Your task to perform on an android device: toggle pop-ups in chrome Image 0: 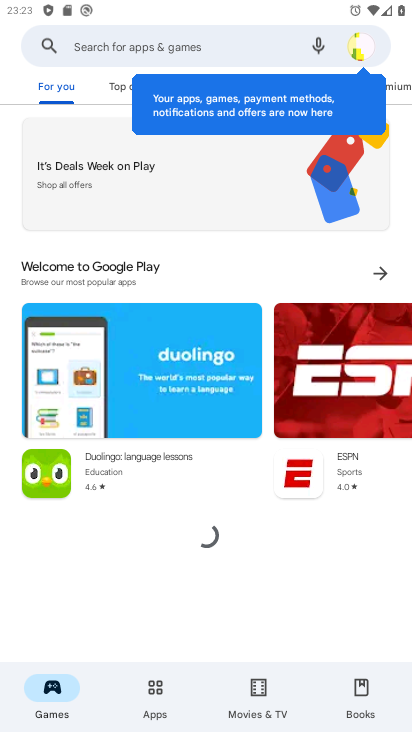
Step 0: press home button
Your task to perform on an android device: toggle pop-ups in chrome Image 1: 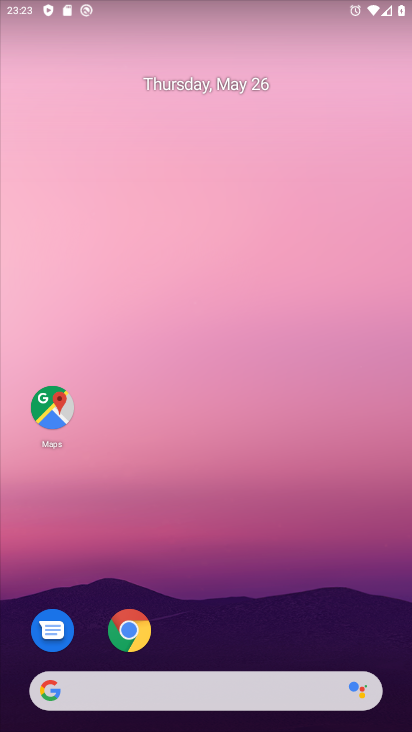
Step 1: click (131, 630)
Your task to perform on an android device: toggle pop-ups in chrome Image 2: 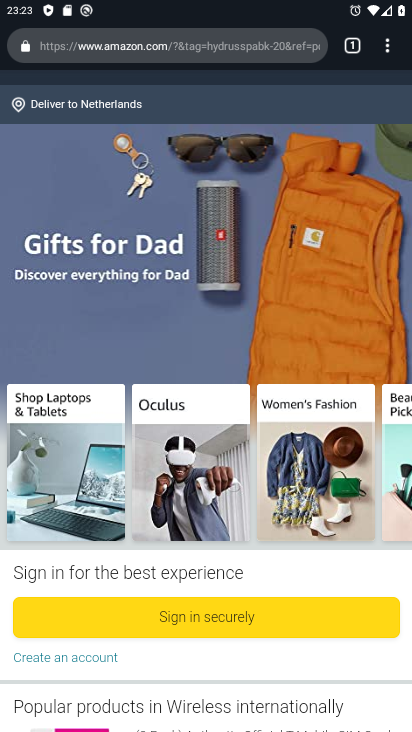
Step 2: click (387, 48)
Your task to perform on an android device: toggle pop-ups in chrome Image 3: 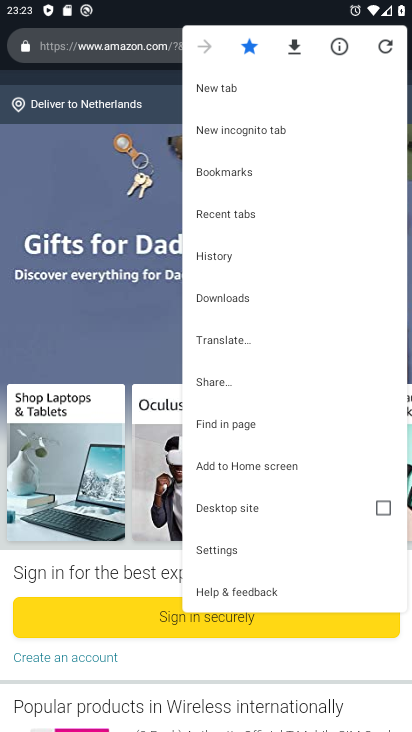
Step 3: drag from (236, 370) to (236, 286)
Your task to perform on an android device: toggle pop-ups in chrome Image 4: 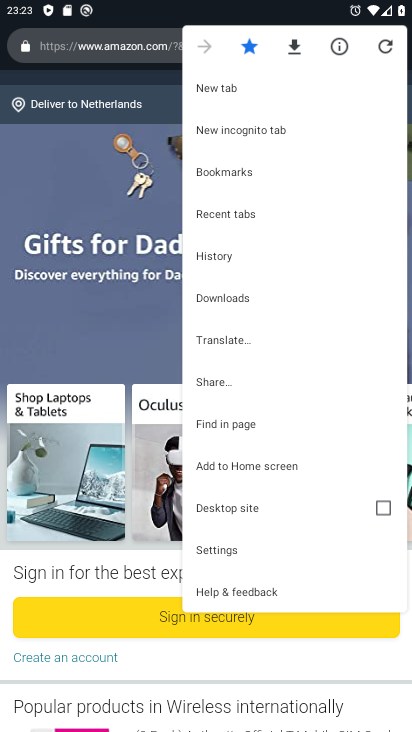
Step 4: click (232, 546)
Your task to perform on an android device: toggle pop-ups in chrome Image 5: 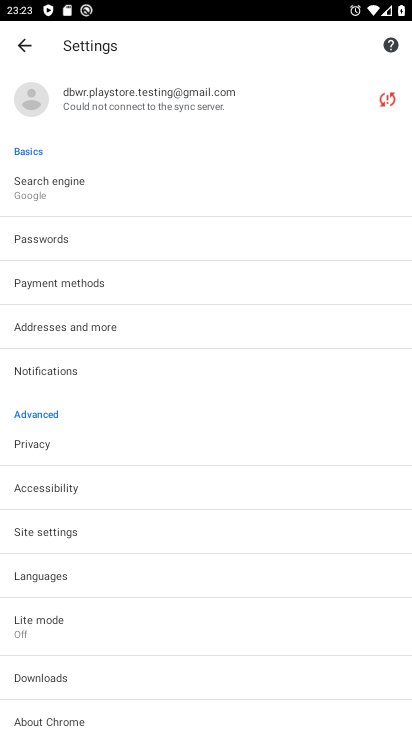
Step 5: drag from (101, 553) to (118, 452)
Your task to perform on an android device: toggle pop-ups in chrome Image 6: 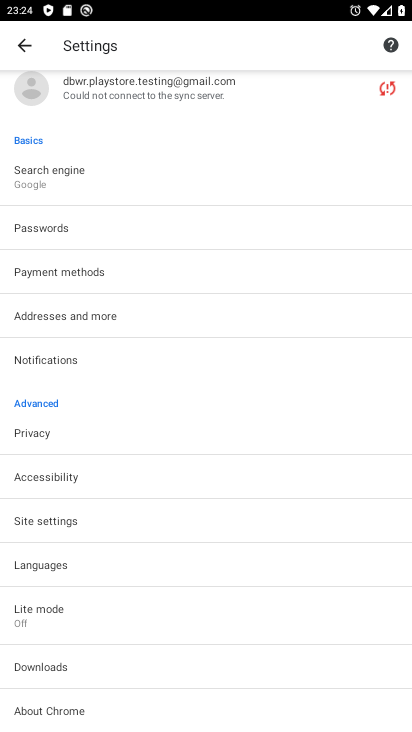
Step 6: click (61, 516)
Your task to perform on an android device: toggle pop-ups in chrome Image 7: 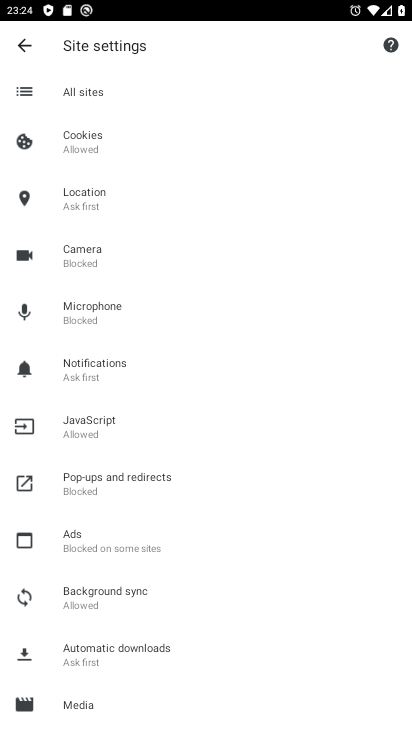
Step 7: click (96, 483)
Your task to perform on an android device: toggle pop-ups in chrome Image 8: 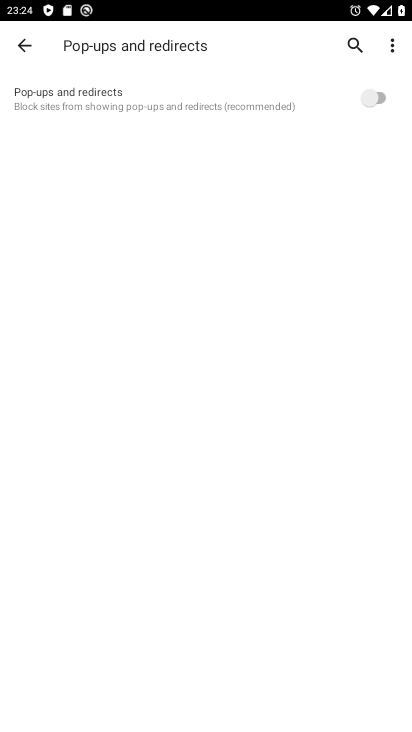
Step 8: click (377, 94)
Your task to perform on an android device: toggle pop-ups in chrome Image 9: 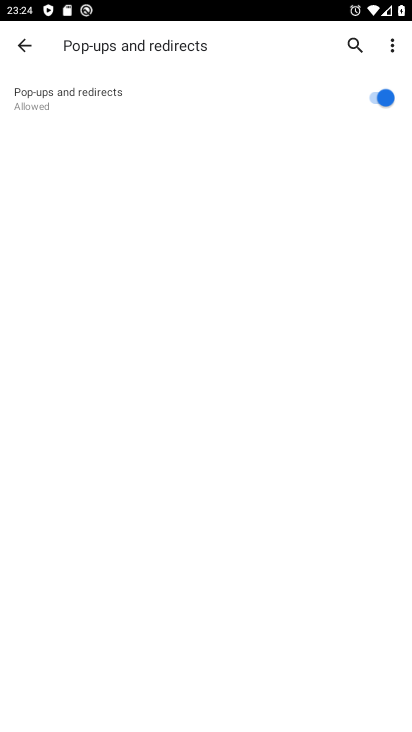
Step 9: task complete